Your task to perform on an android device: move an email to a new category in the gmail app Image 0: 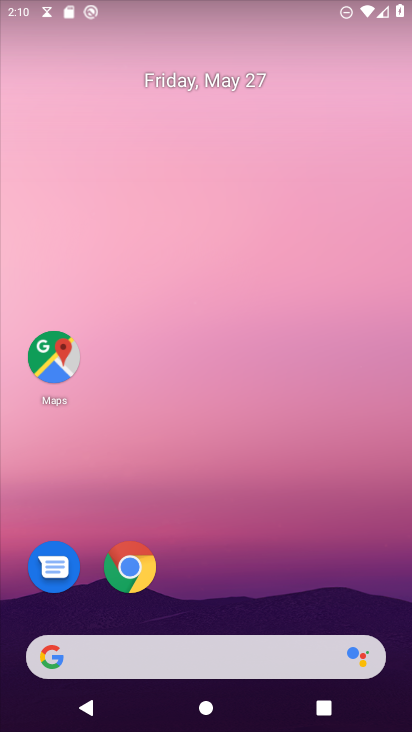
Step 0: drag from (283, 5) to (276, 467)
Your task to perform on an android device: move an email to a new category in the gmail app Image 1: 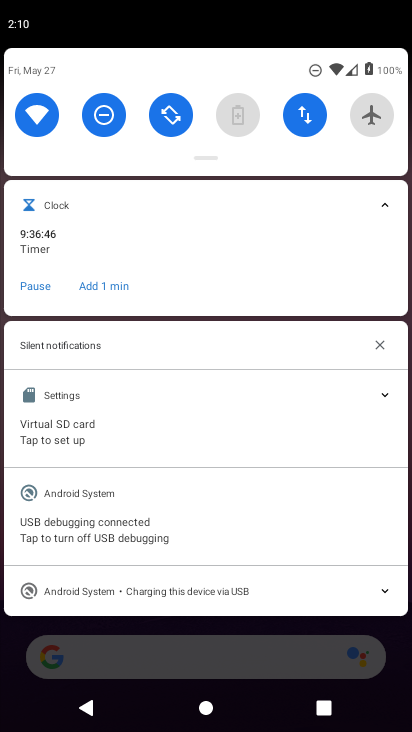
Step 1: press home button
Your task to perform on an android device: move an email to a new category in the gmail app Image 2: 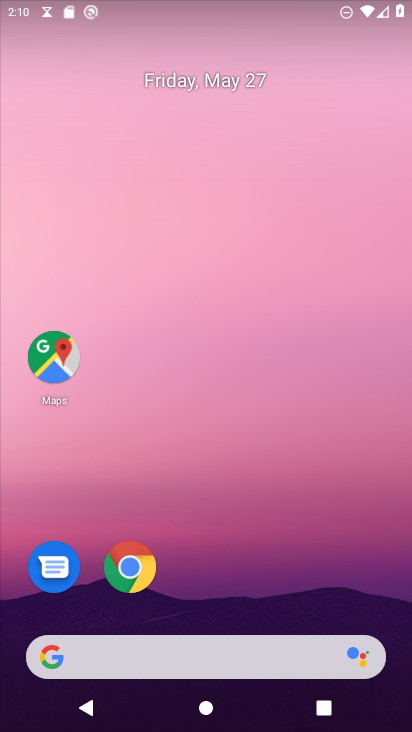
Step 2: drag from (225, 589) to (204, 123)
Your task to perform on an android device: move an email to a new category in the gmail app Image 3: 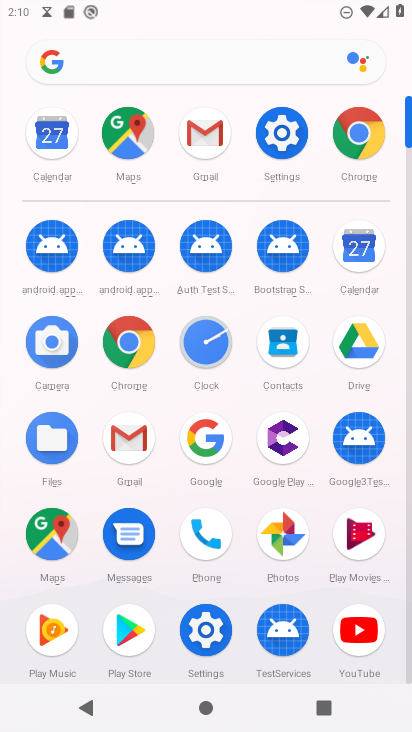
Step 3: click (215, 150)
Your task to perform on an android device: move an email to a new category in the gmail app Image 4: 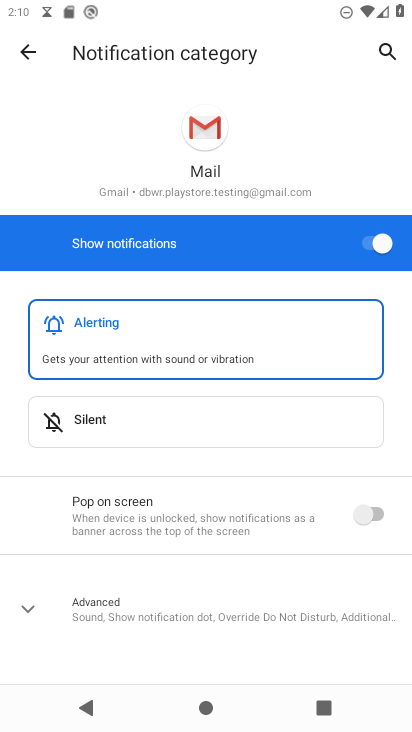
Step 4: click (24, 55)
Your task to perform on an android device: move an email to a new category in the gmail app Image 5: 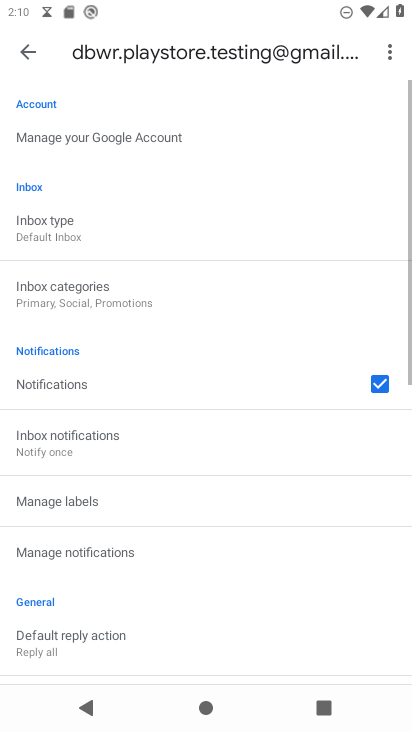
Step 5: click (24, 55)
Your task to perform on an android device: move an email to a new category in the gmail app Image 6: 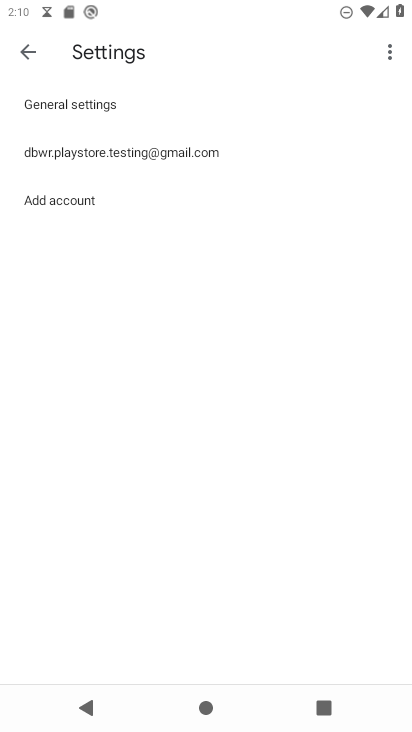
Step 6: click (24, 55)
Your task to perform on an android device: move an email to a new category in the gmail app Image 7: 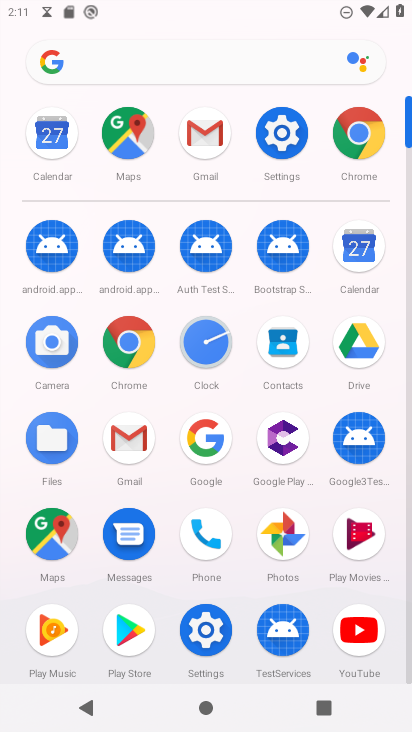
Step 7: click (201, 147)
Your task to perform on an android device: move an email to a new category in the gmail app Image 8: 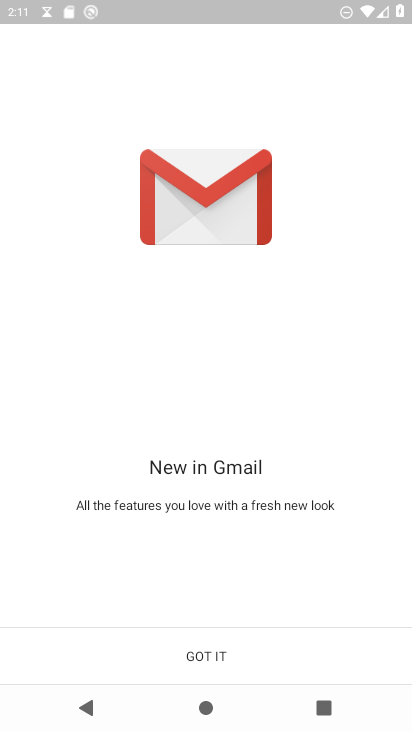
Step 8: click (216, 661)
Your task to perform on an android device: move an email to a new category in the gmail app Image 9: 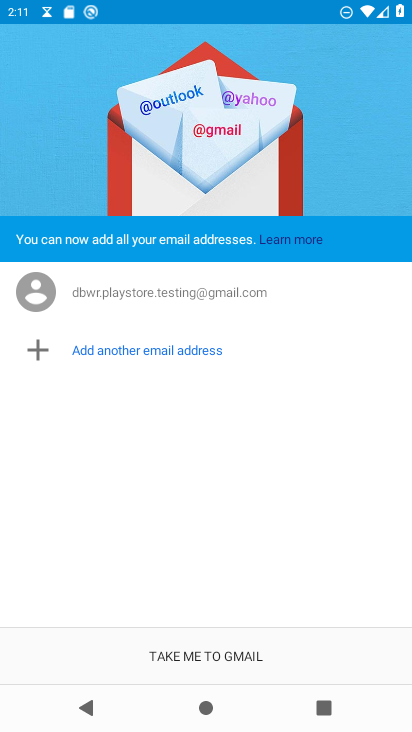
Step 9: click (216, 661)
Your task to perform on an android device: move an email to a new category in the gmail app Image 10: 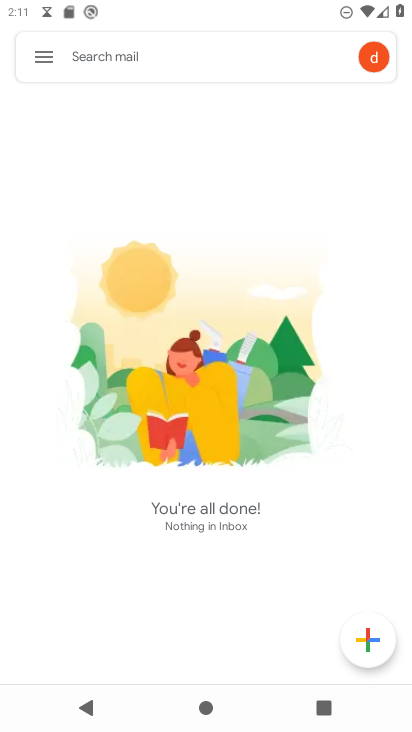
Step 10: task complete